Your task to perform on an android device: make emails show in primary in the gmail app Image 0: 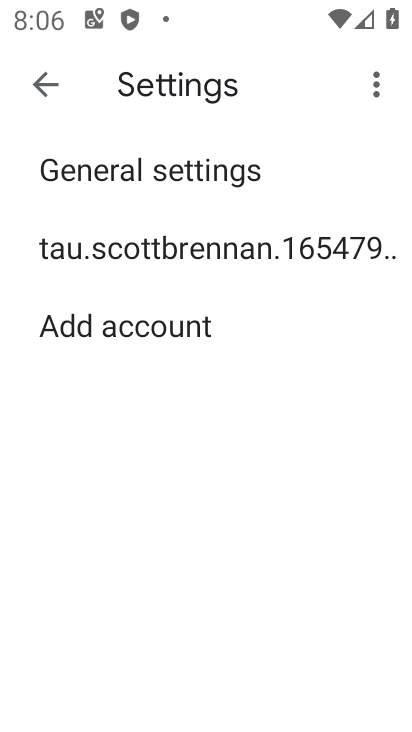
Step 0: press home button
Your task to perform on an android device: make emails show in primary in the gmail app Image 1: 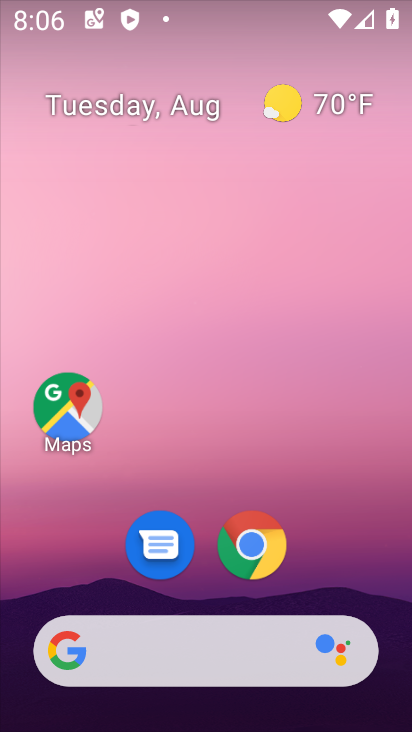
Step 1: drag from (206, 627) to (267, 213)
Your task to perform on an android device: make emails show in primary in the gmail app Image 2: 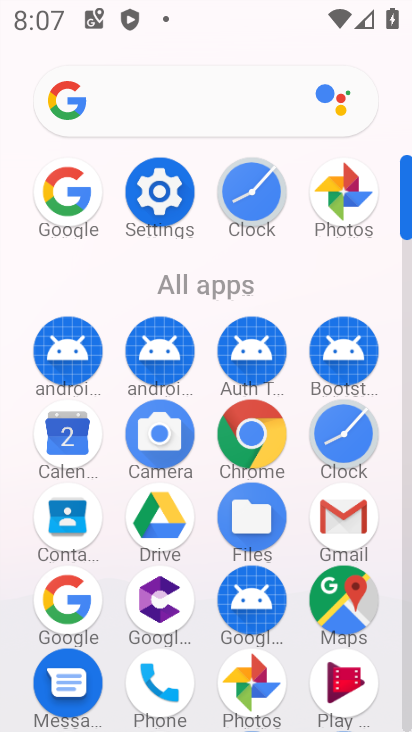
Step 2: click (351, 536)
Your task to perform on an android device: make emails show in primary in the gmail app Image 3: 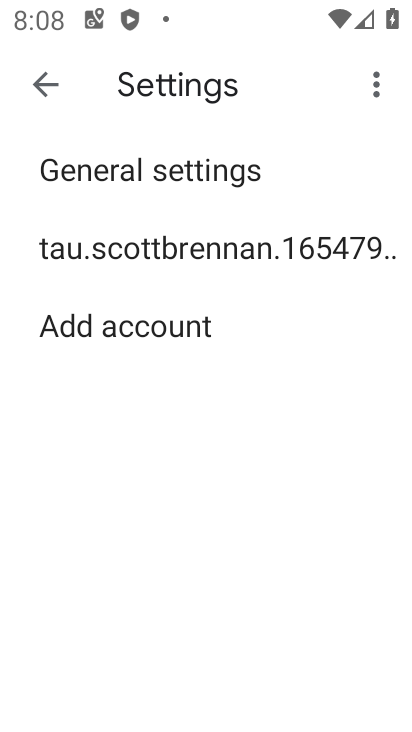
Step 3: click (109, 173)
Your task to perform on an android device: make emails show in primary in the gmail app Image 4: 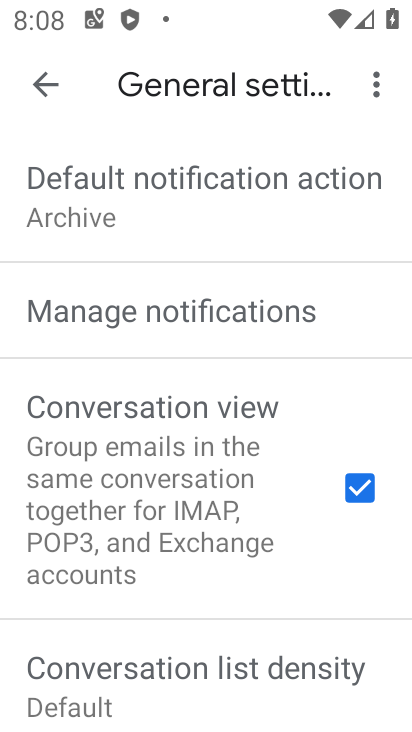
Step 4: task complete